Your task to perform on an android device: Go to wifi settings Image 0: 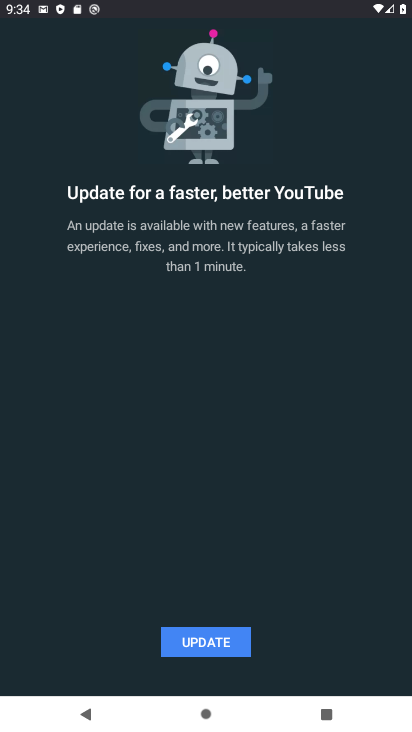
Step 0: press home button
Your task to perform on an android device: Go to wifi settings Image 1: 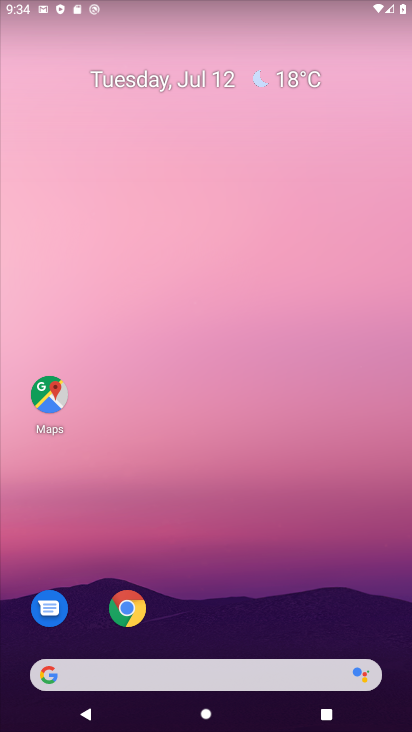
Step 1: drag from (239, 584) to (194, 93)
Your task to perform on an android device: Go to wifi settings Image 2: 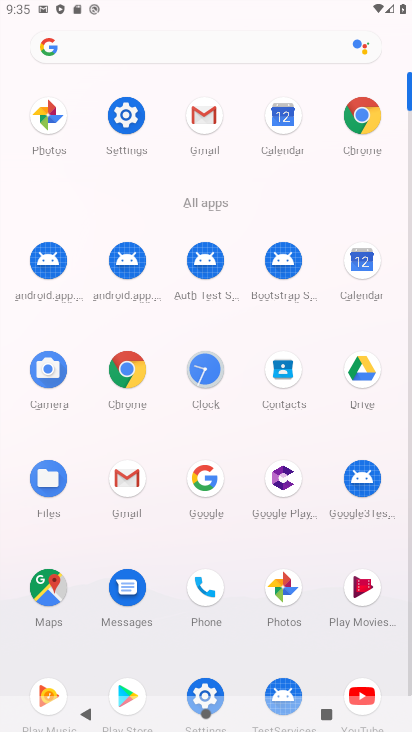
Step 2: click (129, 114)
Your task to perform on an android device: Go to wifi settings Image 3: 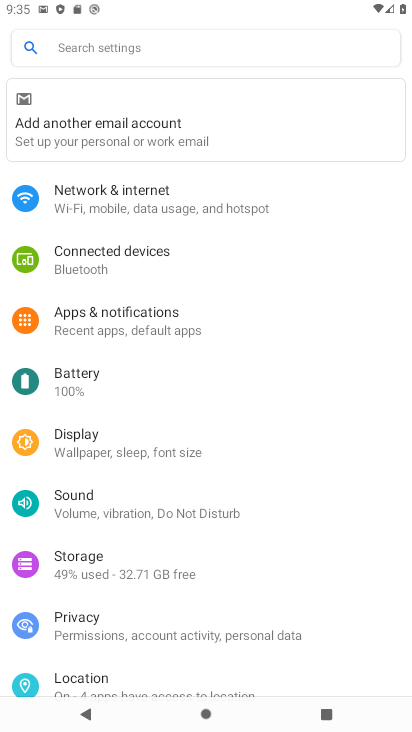
Step 3: click (117, 195)
Your task to perform on an android device: Go to wifi settings Image 4: 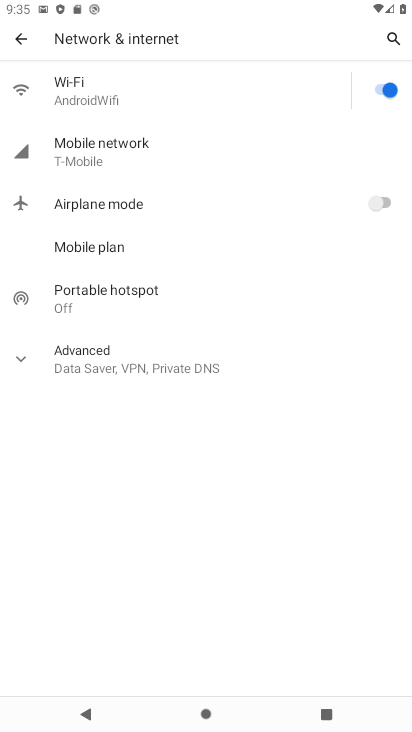
Step 4: click (107, 87)
Your task to perform on an android device: Go to wifi settings Image 5: 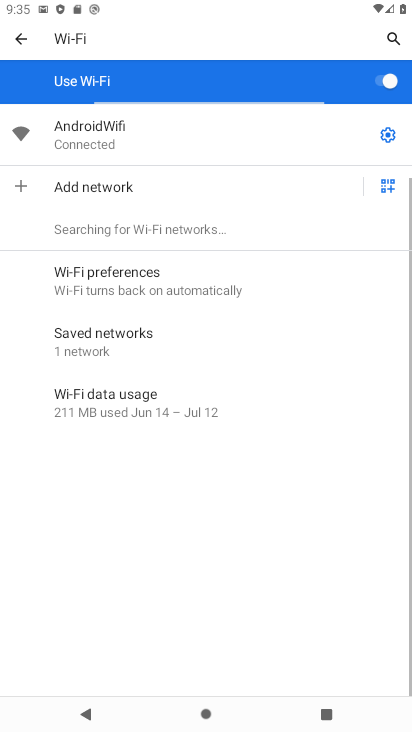
Step 5: task complete